Your task to perform on an android device: open app "Google Find My Device" Image 0: 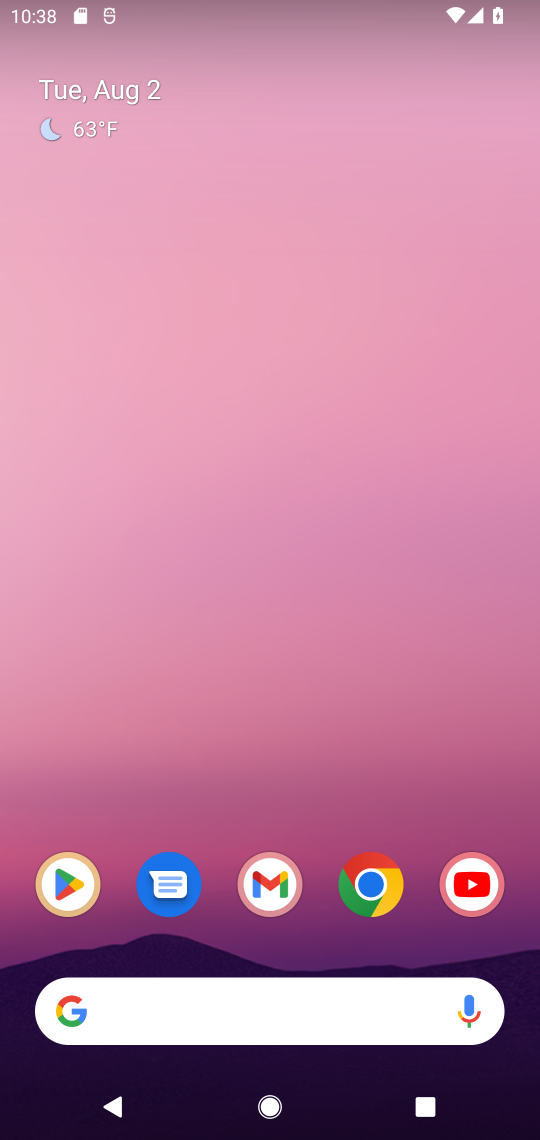
Step 0: click (79, 880)
Your task to perform on an android device: open app "Google Find My Device" Image 1: 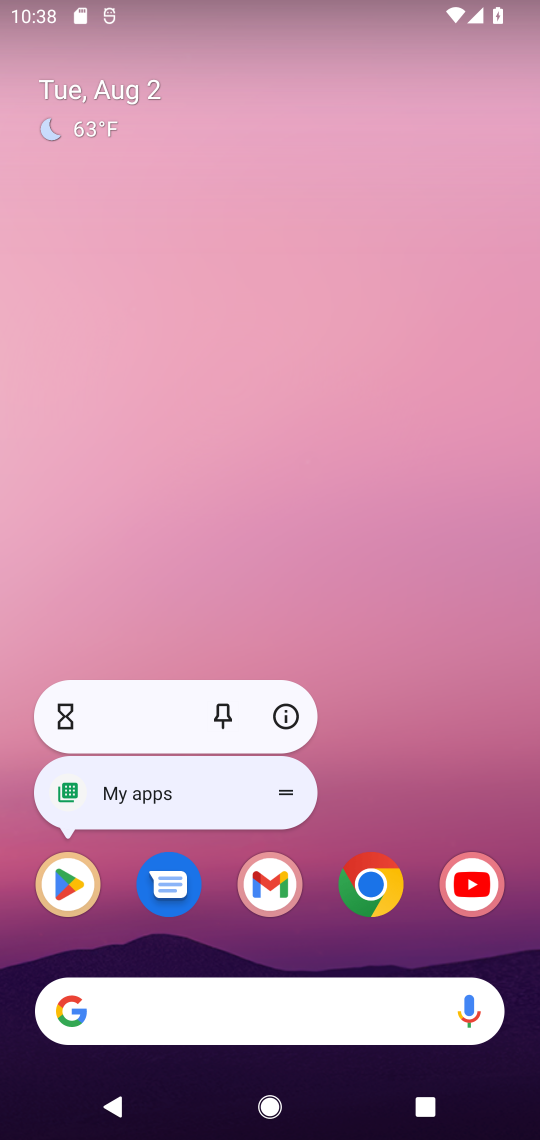
Step 1: click (58, 863)
Your task to perform on an android device: open app "Google Find My Device" Image 2: 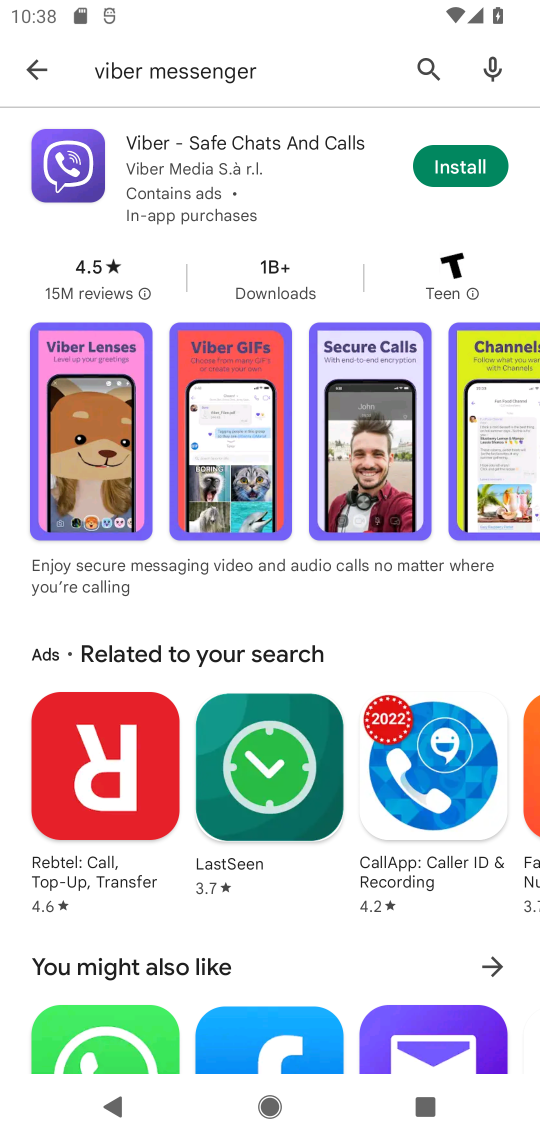
Step 2: click (242, 71)
Your task to perform on an android device: open app "Google Find My Device" Image 3: 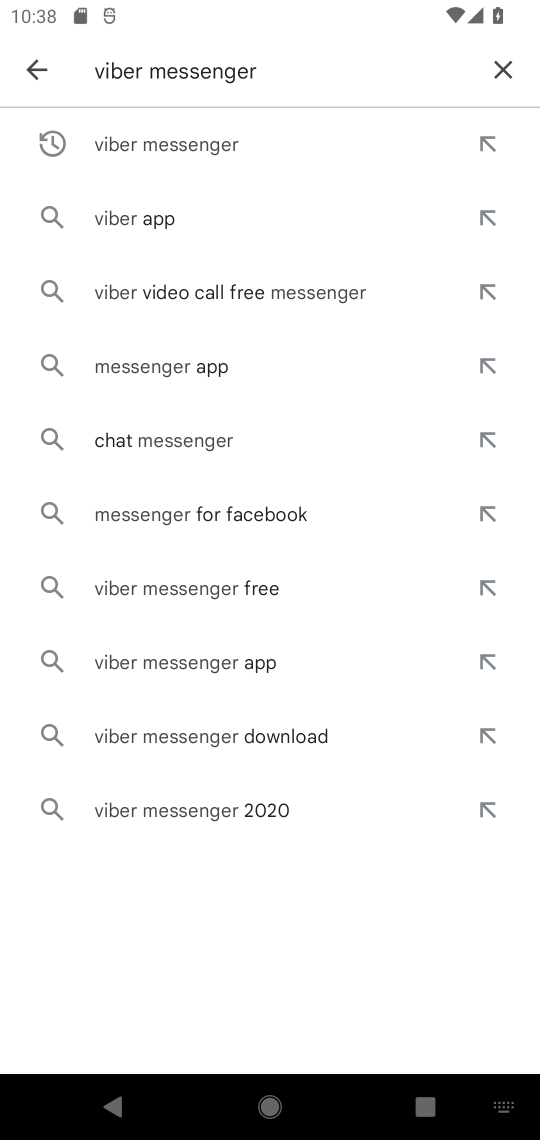
Step 3: click (503, 65)
Your task to perform on an android device: open app "Google Find My Device" Image 4: 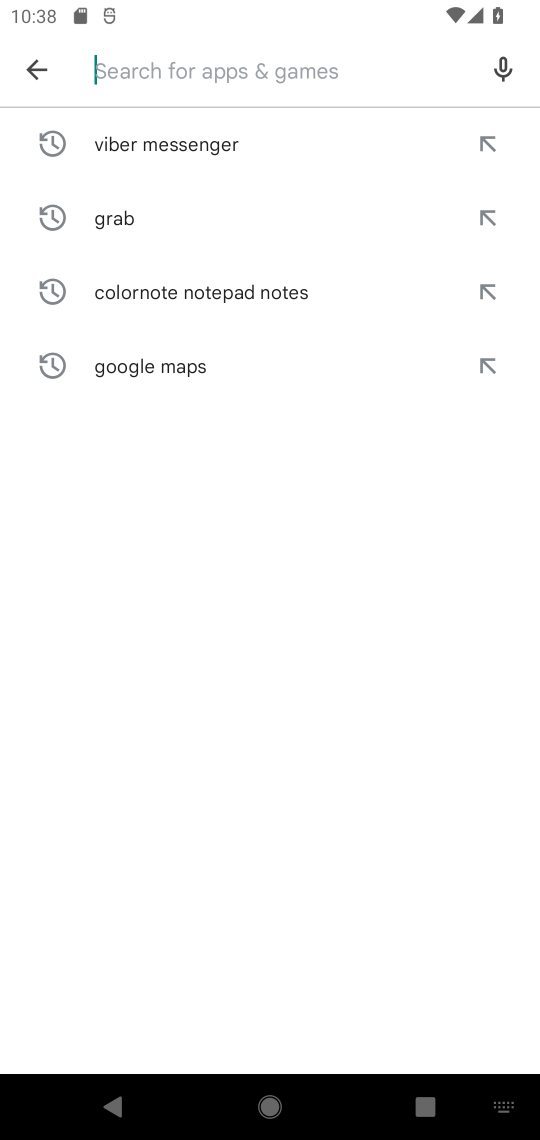
Step 4: type "google find my device"
Your task to perform on an android device: open app "Google Find My Device" Image 5: 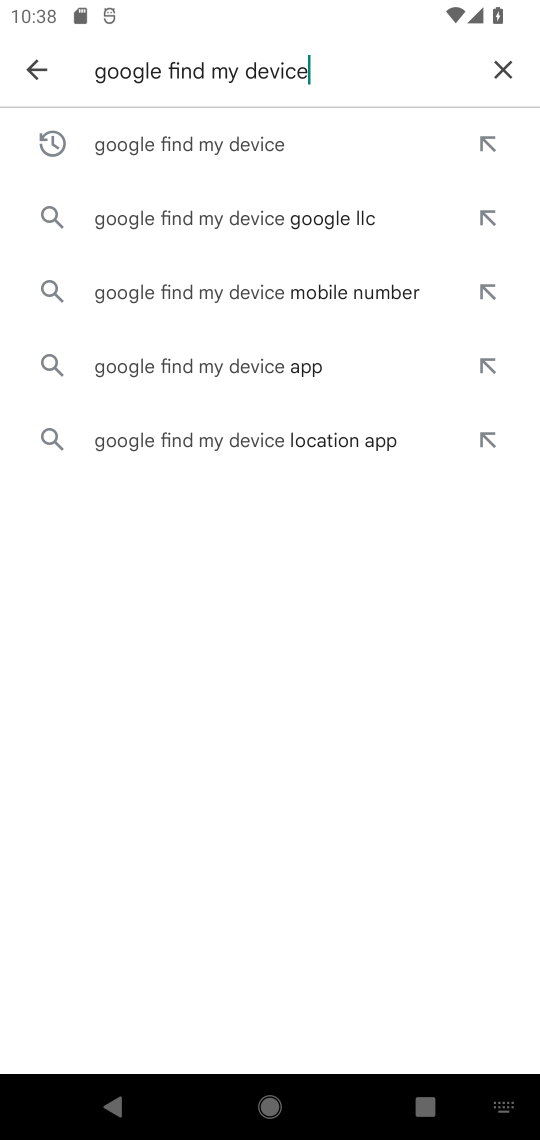
Step 5: click (194, 150)
Your task to perform on an android device: open app "Google Find My Device" Image 6: 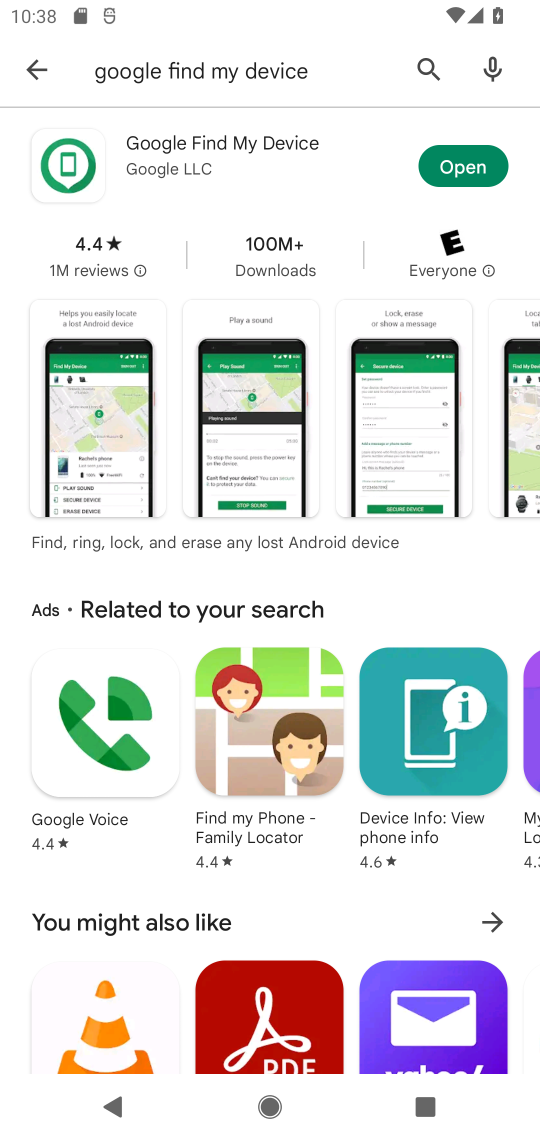
Step 6: click (489, 174)
Your task to perform on an android device: open app "Google Find My Device" Image 7: 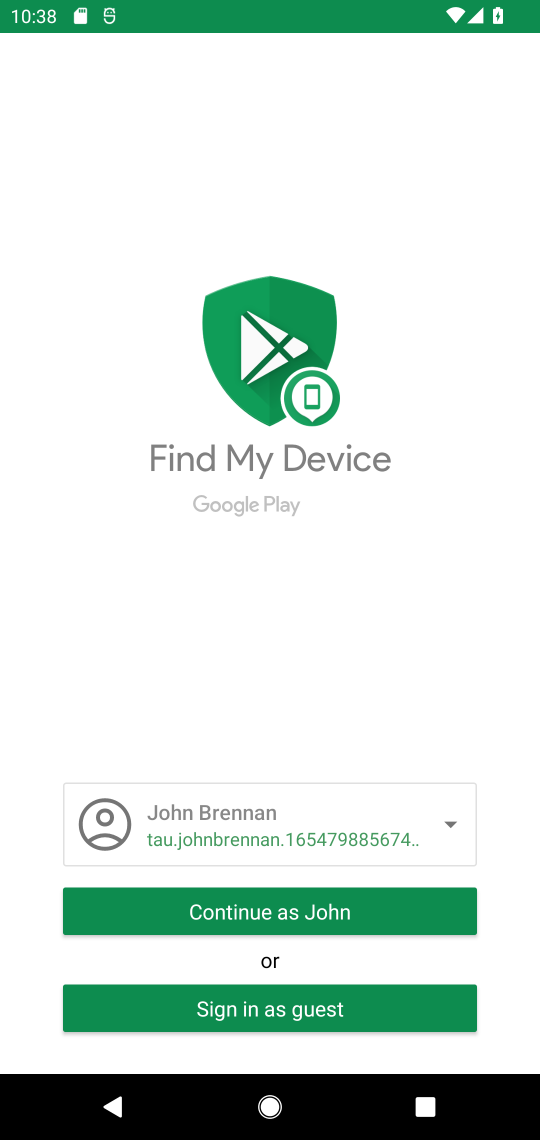
Step 7: click (304, 907)
Your task to perform on an android device: open app "Google Find My Device" Image 8: 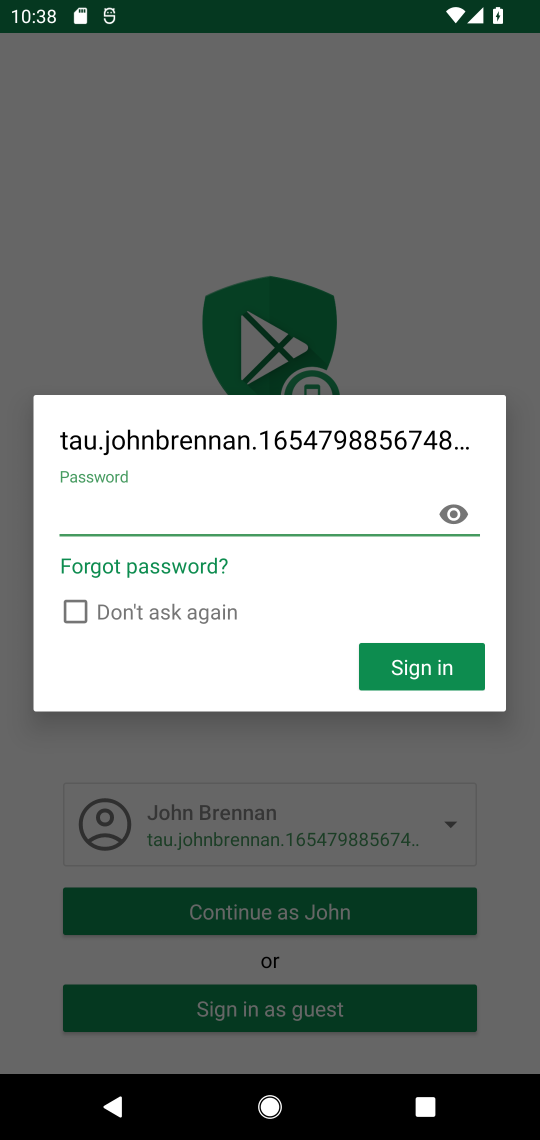
Step 8: task complete